Your task to perform on an android device: Go to Android settings Image 0: 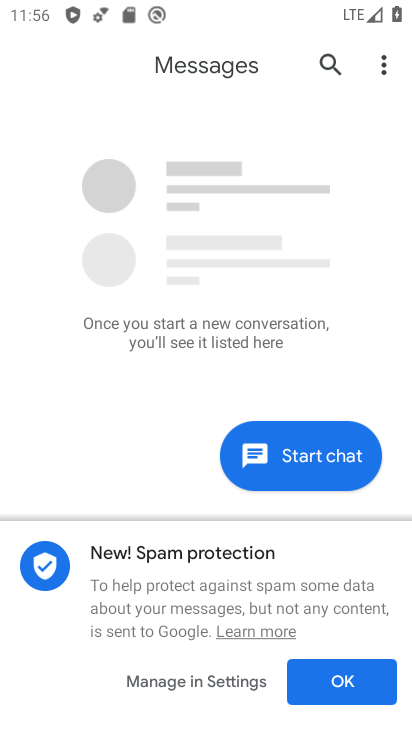
Step 0: press back button
Your task to perform on an android device: Go to Android settings Image 1: 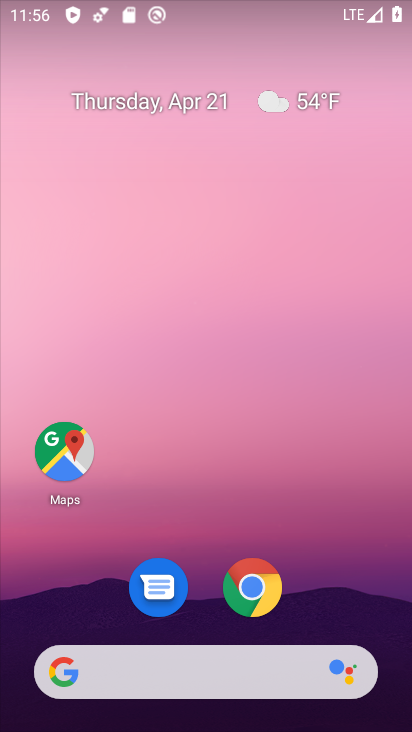
Step 1: drag from (157, 603) to (251, 69)
Your task to perform on an android device: Go to Android settings Image 2: 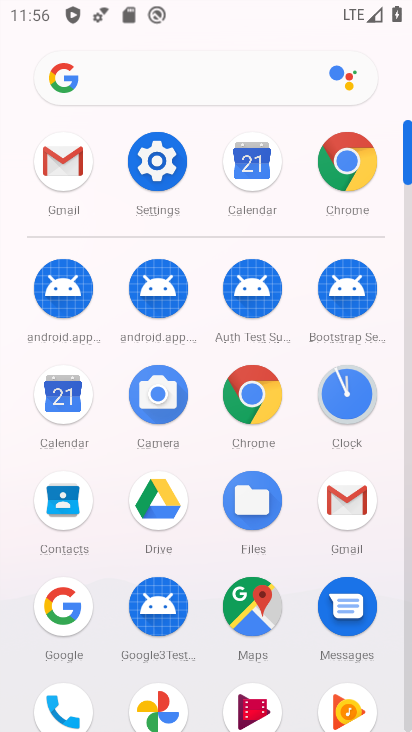
Step 2: click (134, 131)
Your task to perform on an android device: Go to Android settings Image 3: 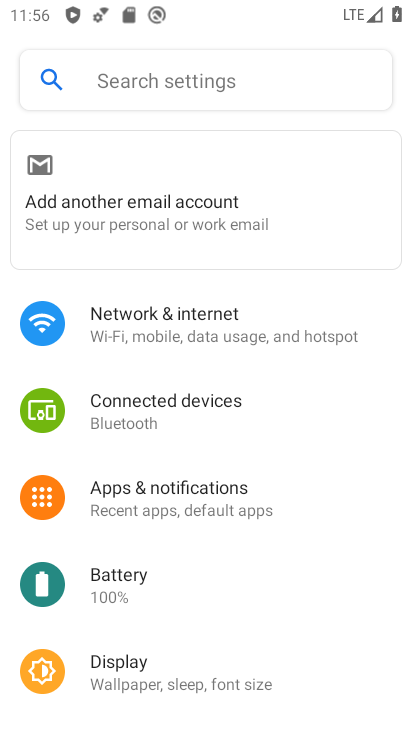
Step 3: drag from (157, 653) to (231, 86)
Your task to perform on an android device: Go to Android settings Image 4: 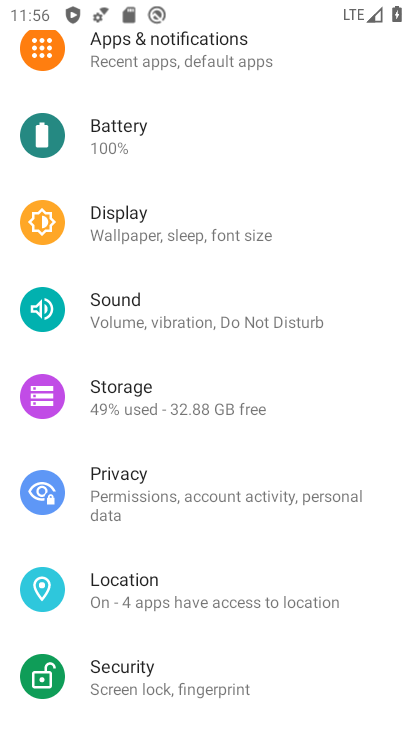
Step 4: drag from (226, 685) to (304, 135)
Your task to perform on an android device: Go to Android settings Image 5: 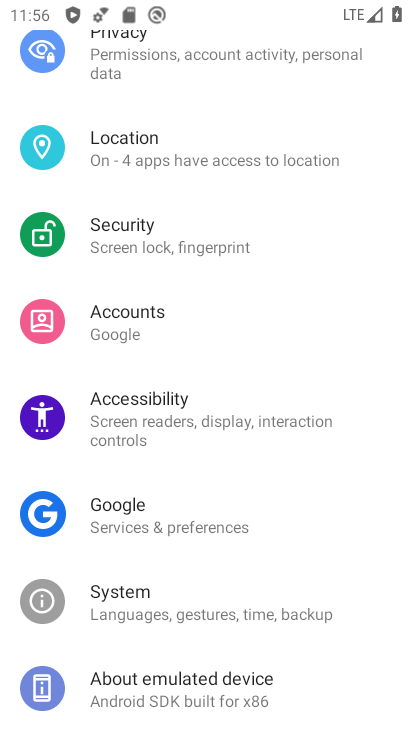
Step 5: drag from (211, 497) to (313, 48)
Your task to perform on an android device: Go to Android settings Image 6: 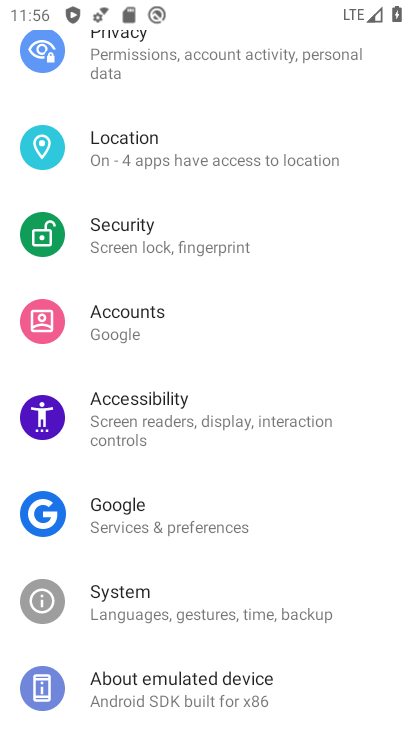
Step 6: click (156, 676)
Your task to perform on an android device: Go to Android settings Image 7: 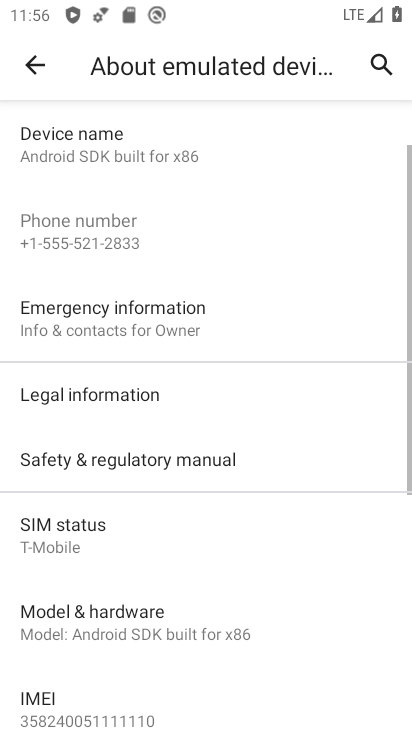
Step 7: task complete